Your task to perform on an android device: change notification settings in the gmail app Image 0: 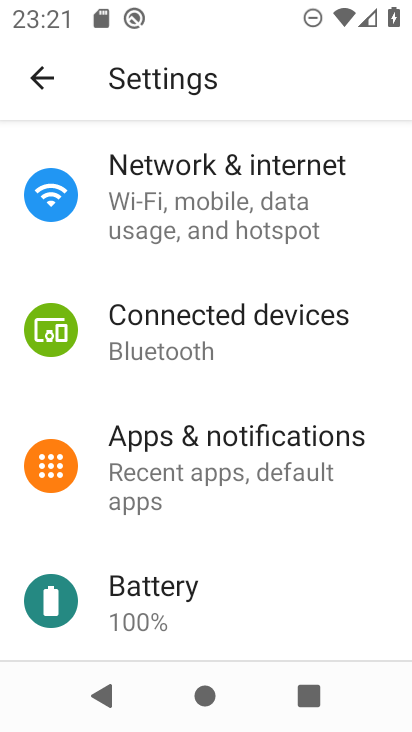
Step 0: press home button
Your task to perform on an android device: change notification settings in the gmail app Image 1: 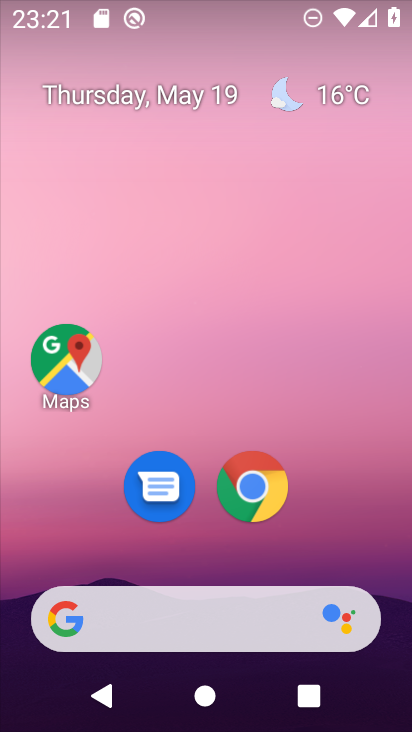
Step 1: drag from (343, 520) to (348, 217)
Your task to perform on an android device: change notification settings in the gmail app Image 2: 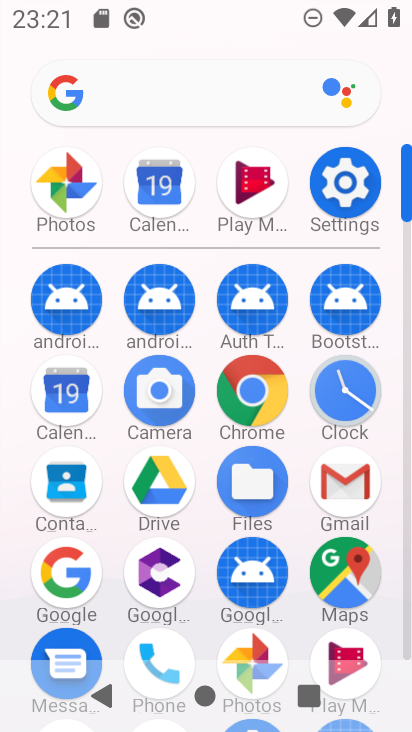
Step 2: click (343, 481)
Your task to perform on an android device: change notification settings in the gmail app Image 3: 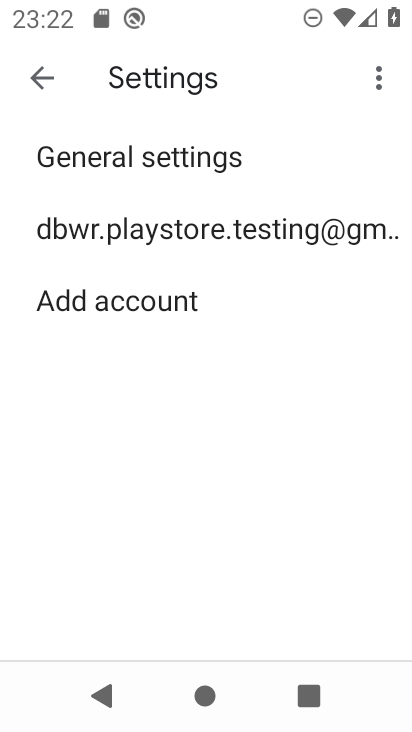
Step 3: click (108, 143)
Your task to perform on an android device: change notification settings in the gmail app Image 4: 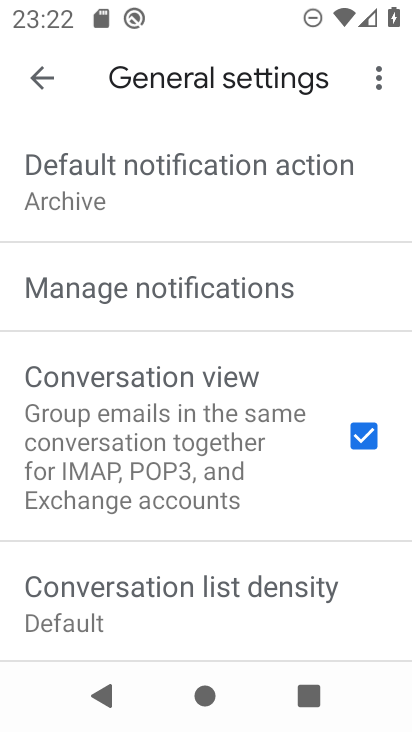
Step 4: click (159, 277)
Your task to perform on an android device: change notification settings in the gmail app Image 5: 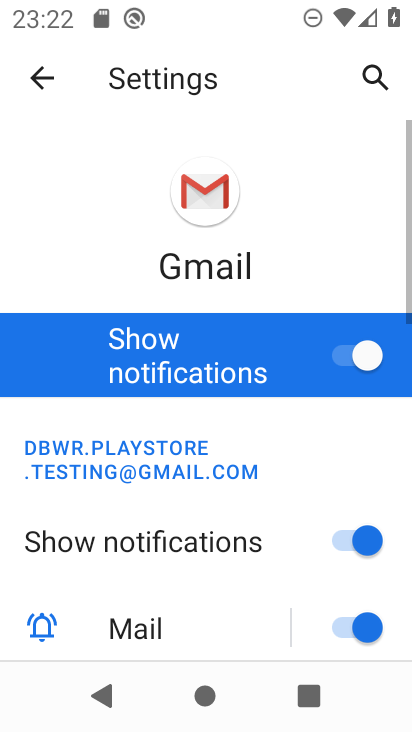
Step 5: click (287, 339)
Your task to perform on an android device: change notification settings in the gmail app Image 6: 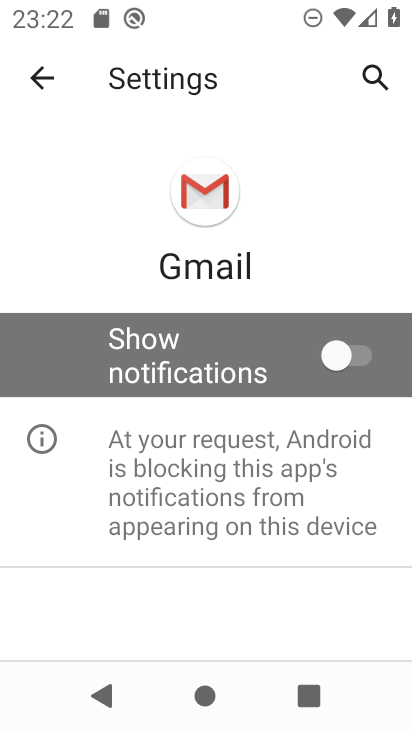
Step 6: task complete